Your task to perform on an android device: add a label to a message in the gmail app Image 0: 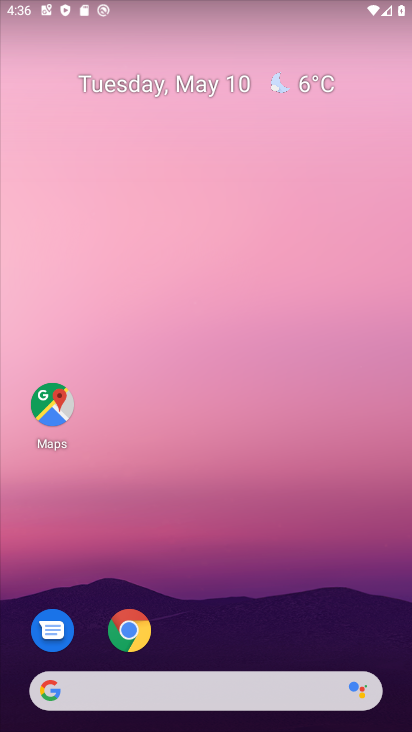
Step 0: drag from (301, 606) to (291, 201)
Your task to perform on an android device: add a label to a message in the gmail app Image 1: 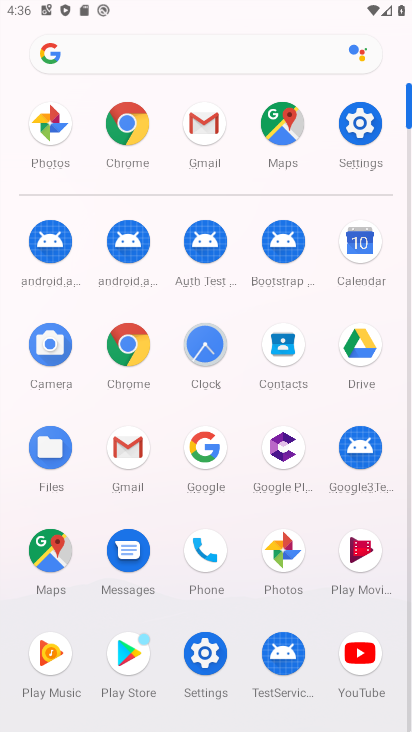
Step 1: click (198, 141)
Your task to perform on an android device: add a label to a message in the gmail app Image 2: 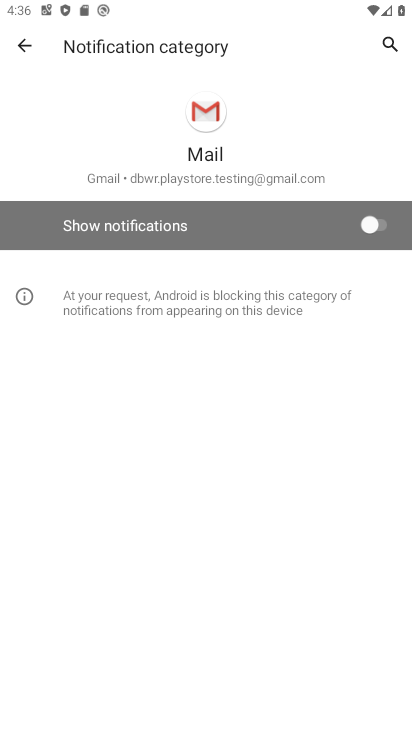
Step 2: click (15, 40)
Your task to perform on an android device: add a label to a message in the gmail app Image 3: 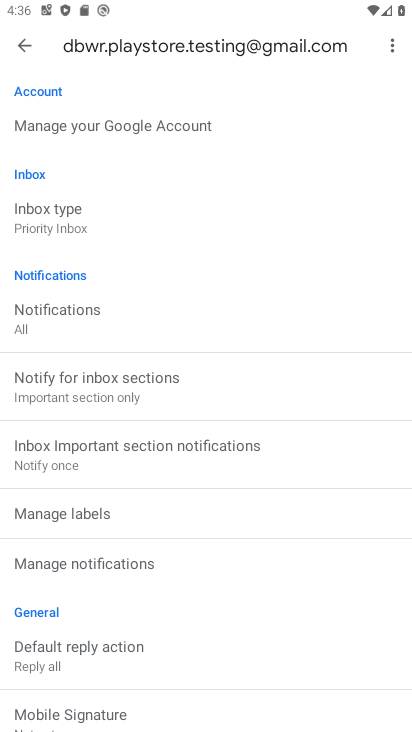
Step 3: click (13, 44)
Your task to perform on an android device: add a label to a message in the gmail app Image 4: 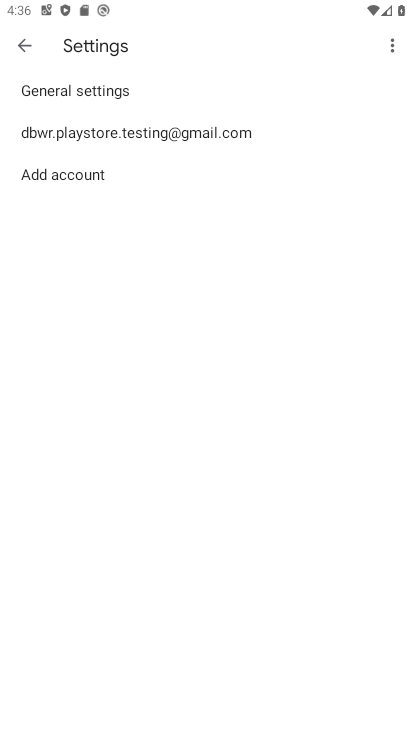
Step 4: click (13, 44)
Your task to perform on an android device: add a label to a message in the gmail app Image 5: 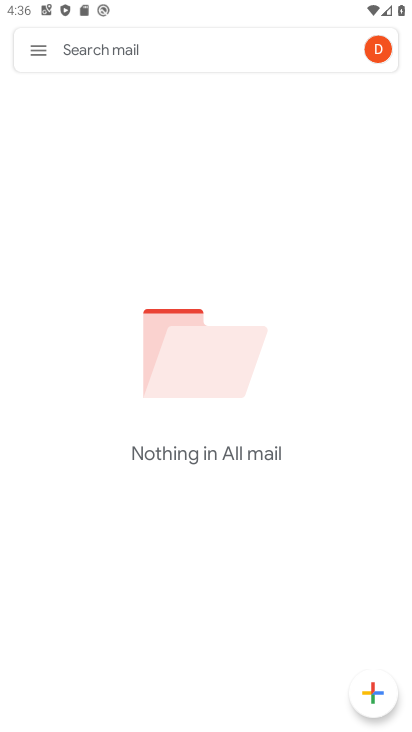
Step 5: click (27, 48)
Your task to perform on an android device: add a label to a message in the gmail app Image 6: 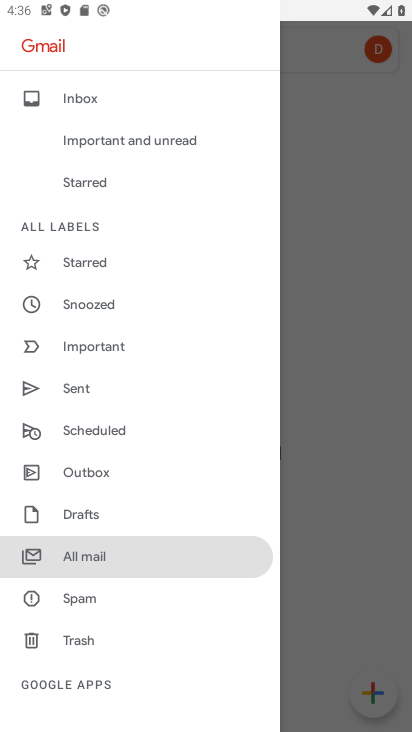
Step 6: click (101, 556)
Your task to perform on an android device: add a label to a message in the gmail app Image 7: 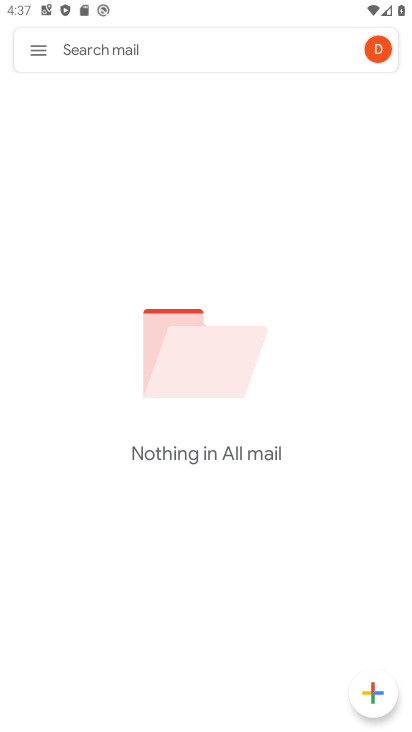
Step 7: task complete